Your task to perform on an android device: check google app version Image 0: 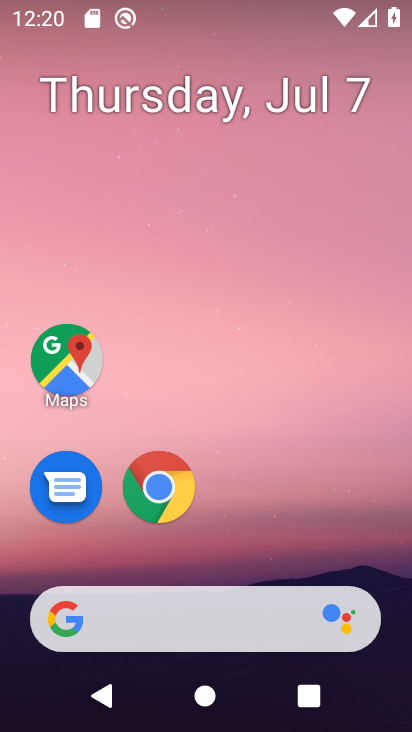
Step 0: drag from (346, 525) to (337, 141)
Your task to perform on an android device: check google app version Image 1: 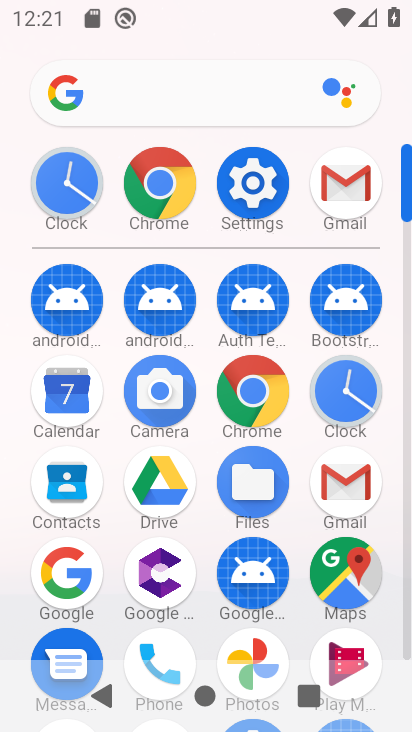
Step 1: click (61, 586)
Your task to perform on an android device: check google app version Image 2: 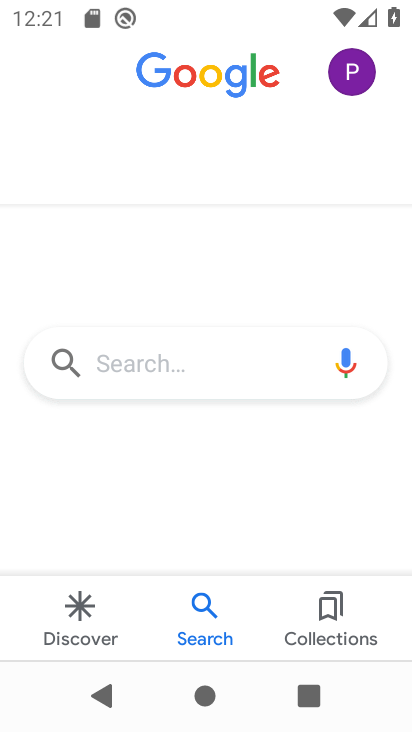
Step 2: click (356, 88)
Your task to perform on an android device: check google app version Image 3: 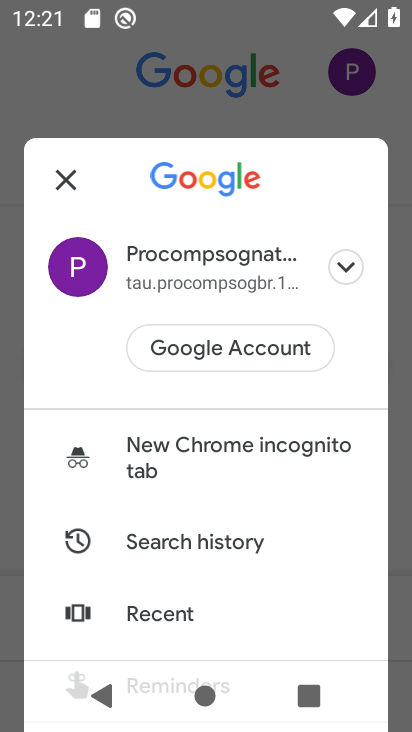
Step 3: drag from (315, 558) to (328, 411)
Your task to perform on an android device: check google app version Image 4: 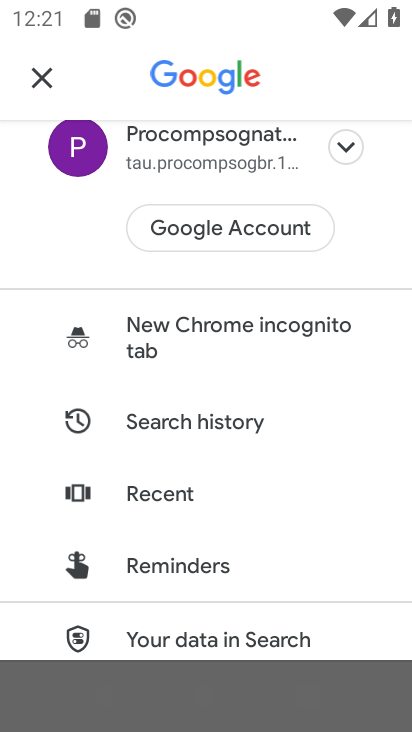
Step 4: drag from (322, 551) to (317, 355)
Your task to perform on an android device: check google app version Image 5: 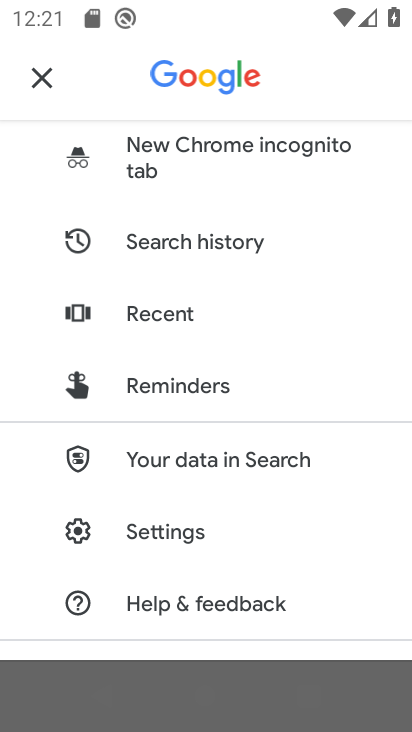
Step 5: drag from (328, 537) to (327, 387)
Your task to perform on an android device: check google app version Image 6: 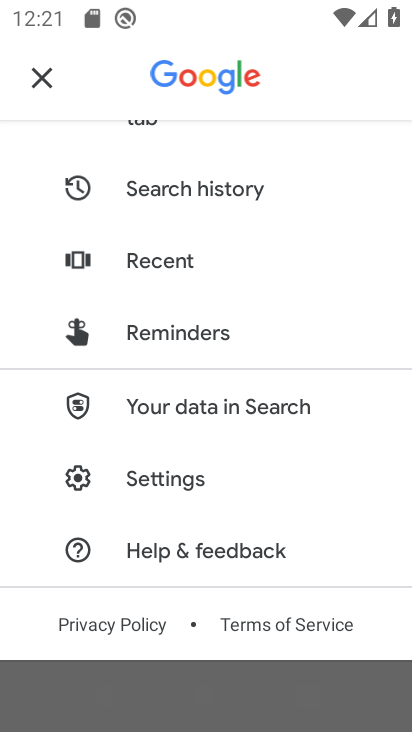
Step 6: click (210, 474)
Your task to perform on an android device: check google app version Image 7: 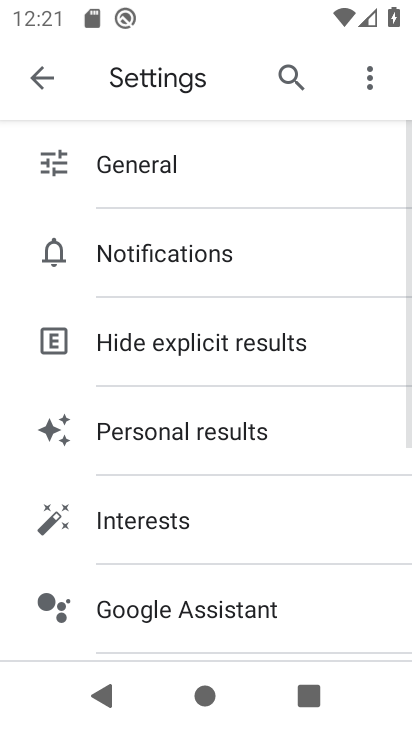
Step 7: drag from (288, 516) to (300, 406)
Your task to perform on an android device: check google app version Image 8: 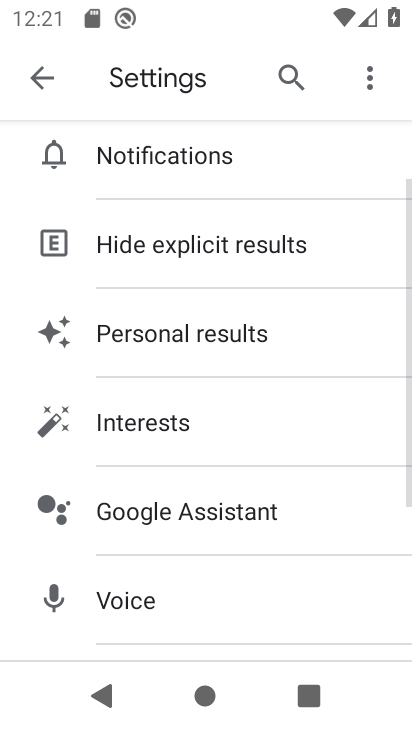
Step 8: drag from (313, 573) to (310, 470)
Your task to perform on an android device: check google app version Image 9: 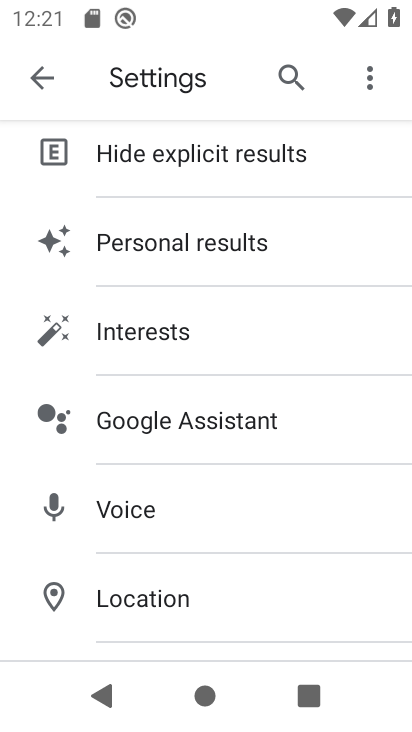
Step 9: drag from (273, 590) to (279, 450)
Your task to perform on an android device: check google app version Image 10: 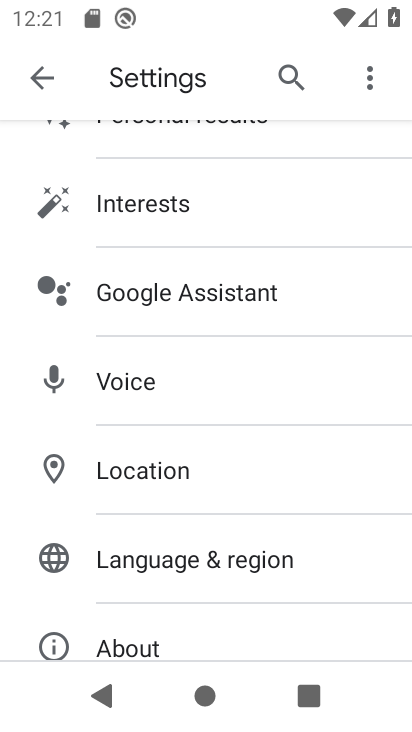
Step 10: drag from (286, 627) to (308, 441)
Your task to perform on an android device: check google app version Image 11: 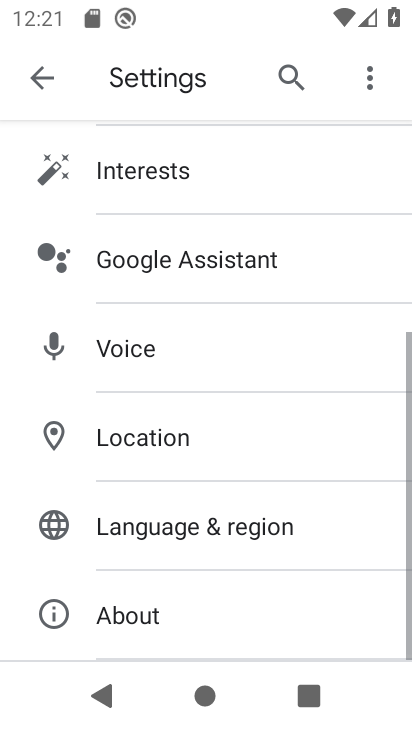
Step 11: click (238, 604)
Your task to perform on an android device: check google app version Image 12: 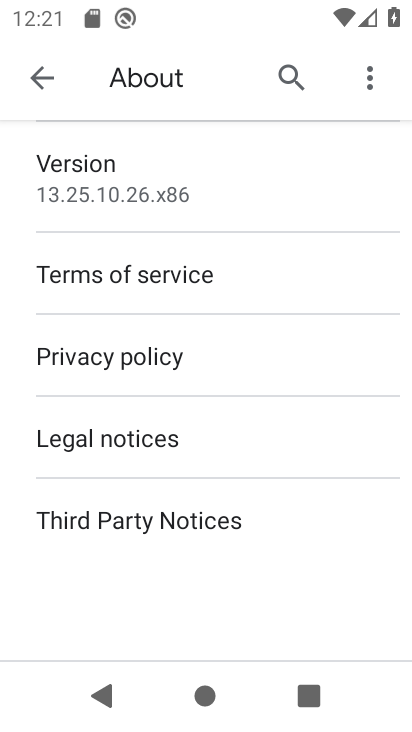
Step 12: task complete